Your task to perform on an android device: Play the last video I watched on Youtube Image 0: 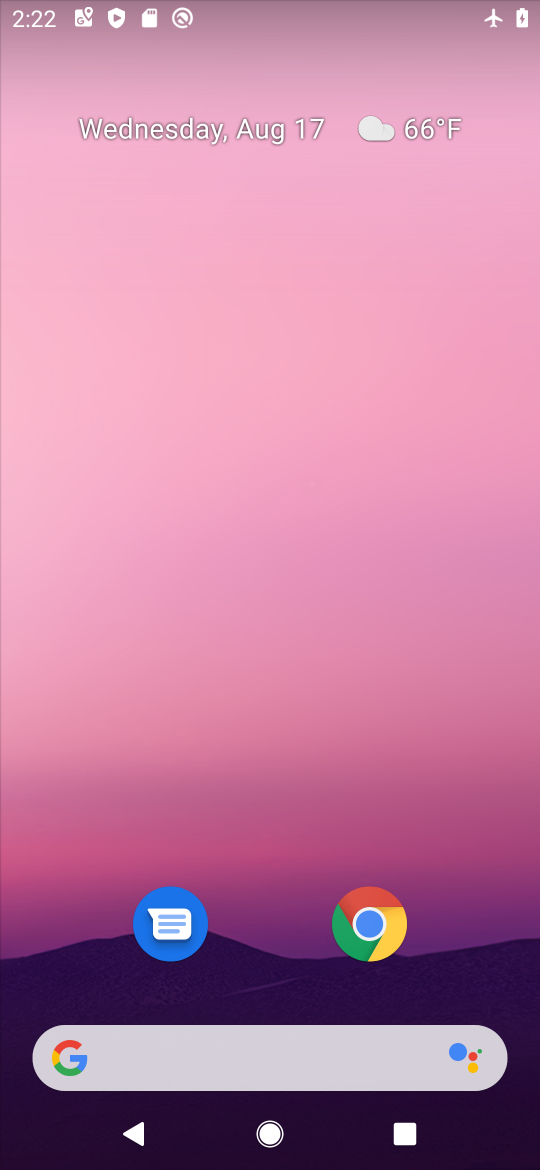
Step 0: drag from (260, 1036) to (140, 78)
Your task to perform on an android device: Play the last video I watched on Youtube Image 1: 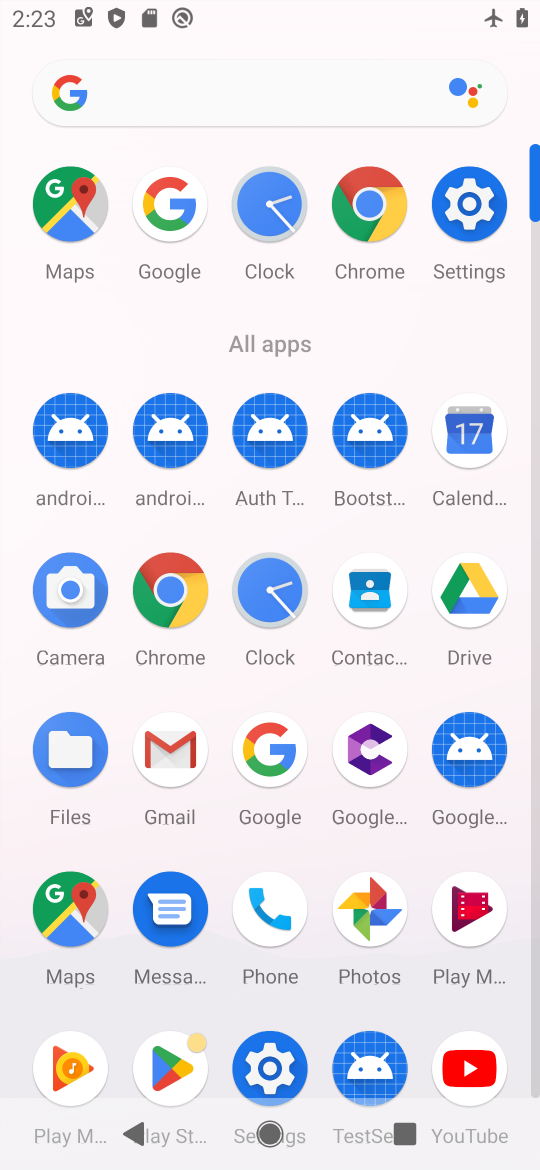
Step 1: click (470, 1068)
Your task to perform on an android device: Play the last video I watched on Youtube Image 2: 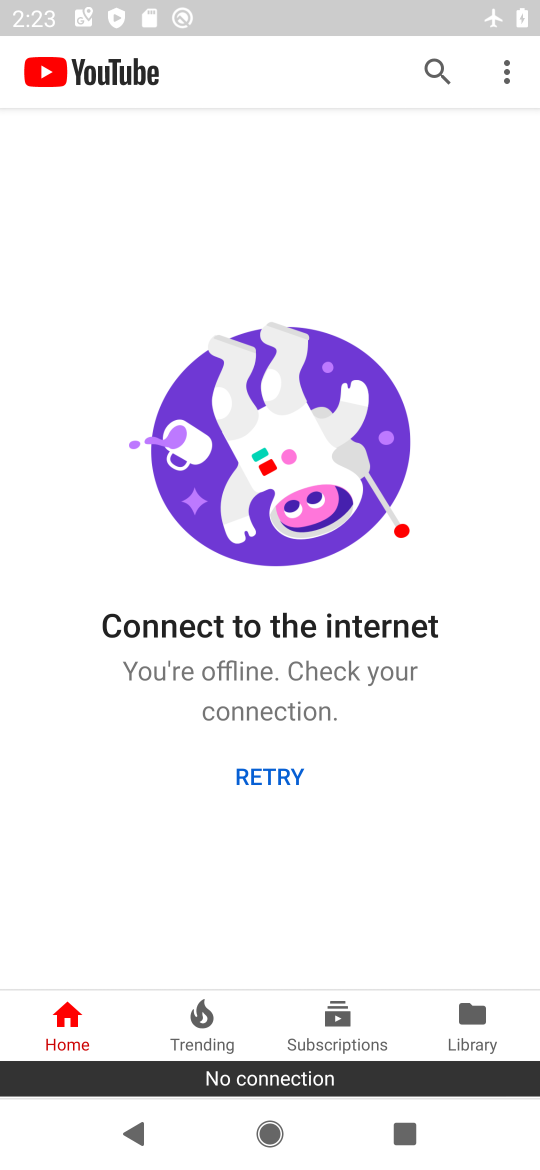
Step 2: click (479, 1038)
Your task to perform on an android device: Play the last video I watched on Youtube Image 3: 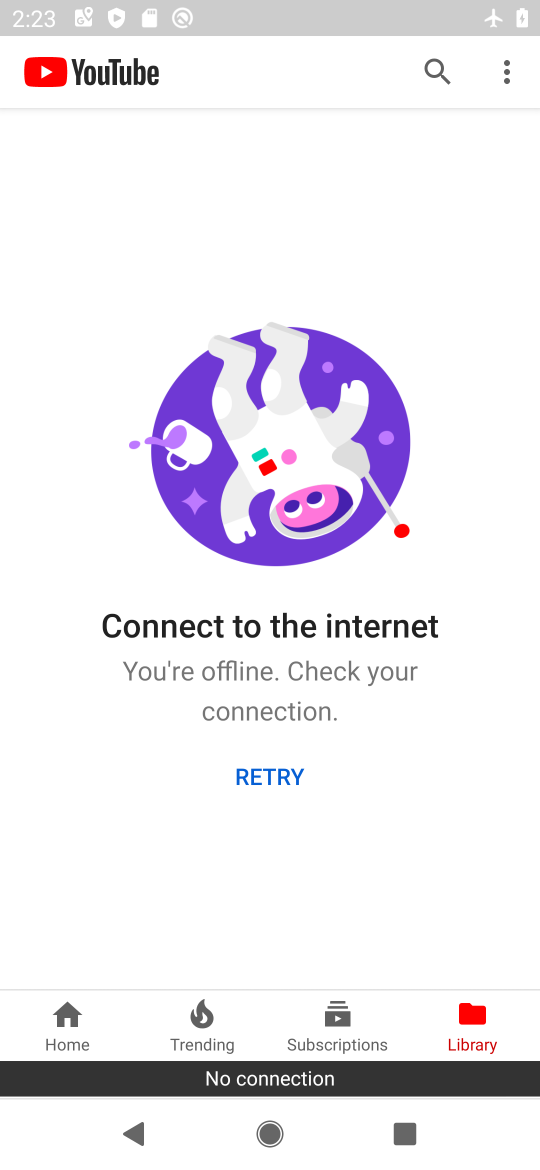
Step 3: task complete